Your task to perform on an android device: open wifi settings Image 0: 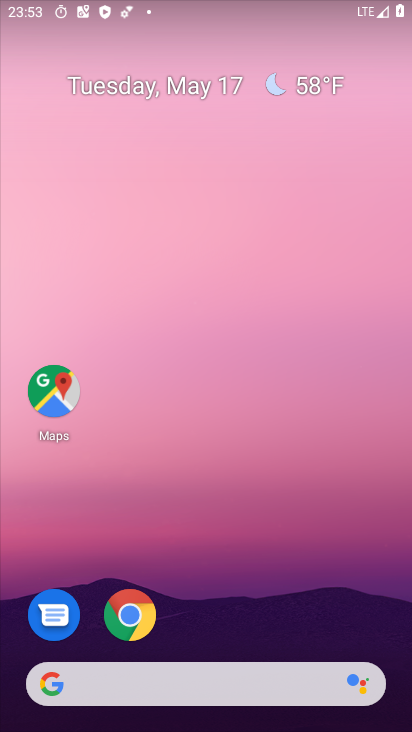
Step 0: drag from (222, 643) to (225, 128)
Your task to perform on an android device: open wifi settings Image 1: 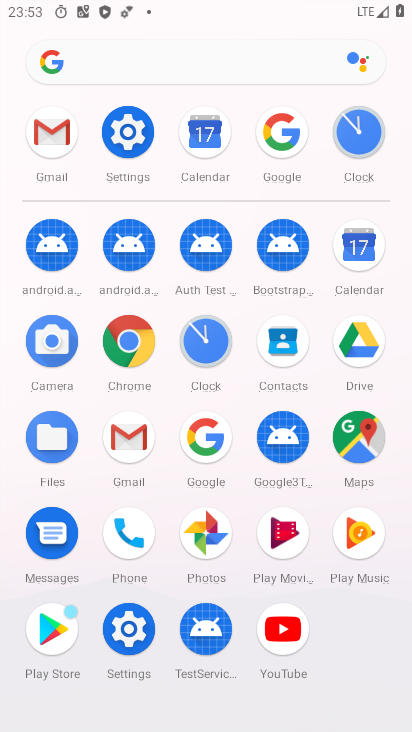
Step 1: click (123, 138)
Your task to perform on an android device: open wifi settings Image 2: 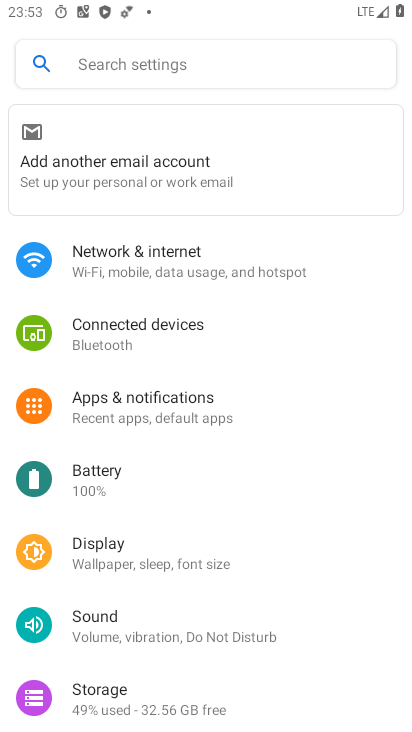
Step 2: click (124, 251)
Your task to perform on an android device: open wifi settings Image 3: 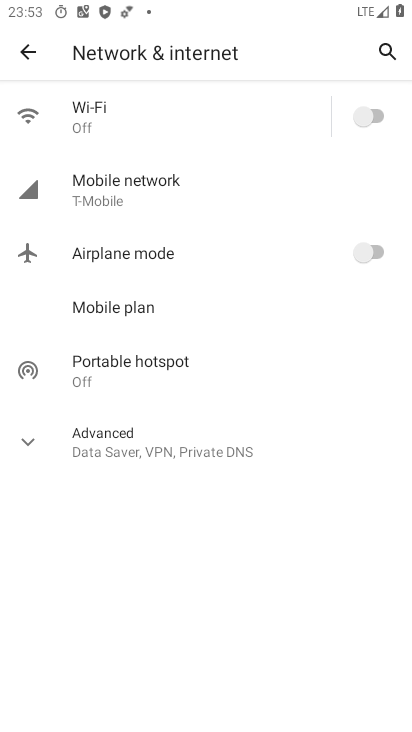
Step 3: click (104, 124)
Your task to perform on an android device: open wifi settings Image 4: 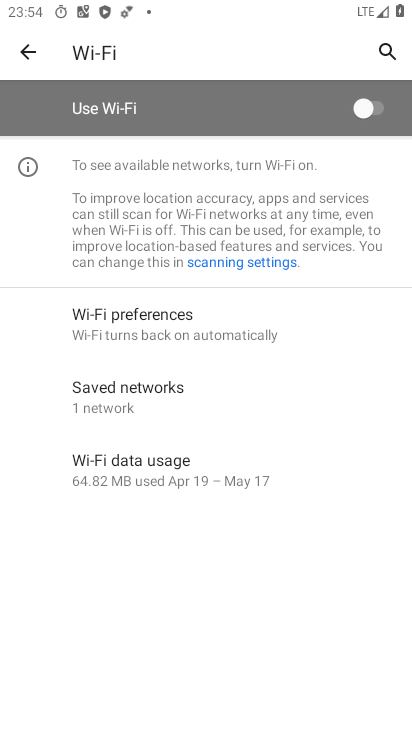
Step 4: task complete